Your task to perform on an android device: turn smart compose on in the gmail app Image 0: 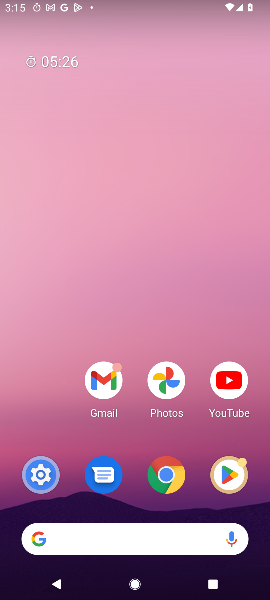
Step 0: press home button
Your task to perform on an android device: turn smart compose on in the gmail app Image 1: 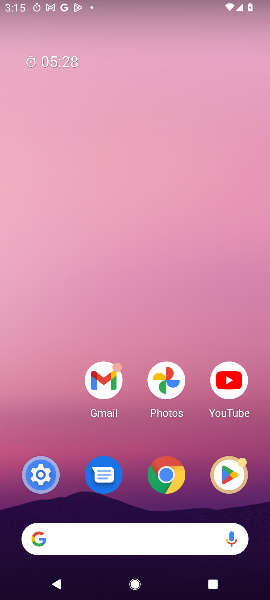
Step 1: drag from (64, 428) to (41, 215)
Your task to perform on an android device: turn smart compose on in the gmail app Image 2: 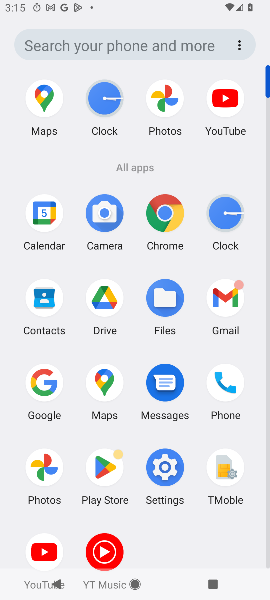
Step 2: click (225, 300)
Your task to perform on an android device: turn smart compose on in the gmail app Image 3: 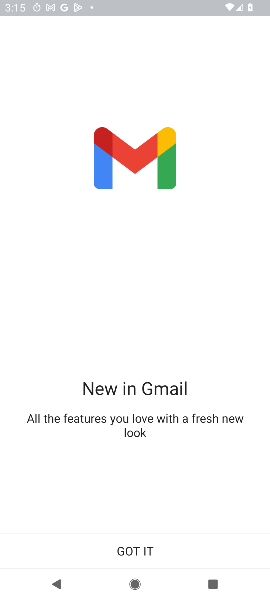
Step 3: click (125, 549)
Your task to perform on an android device: turn smart compose on in the gmail app Image 4: 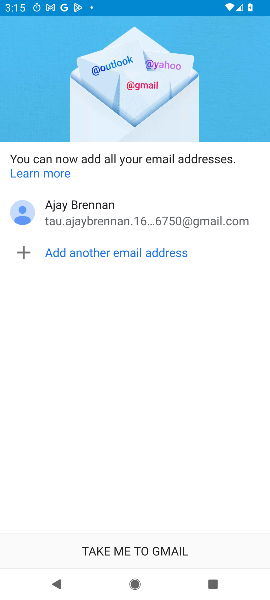
Step 4: click (153, 544)
Your task to perform on an android device: turn smart compose on in the gmail app Image 5: 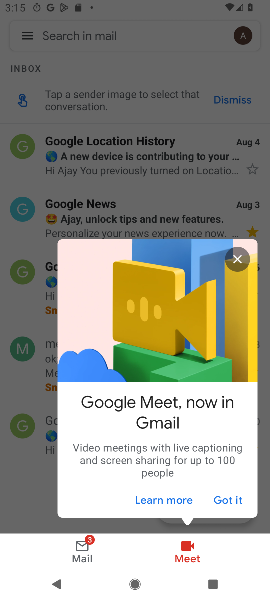
Step 5: click (237, 257)
Your task to perform on an android device: turn smart compose on in the gmail app Image 6: 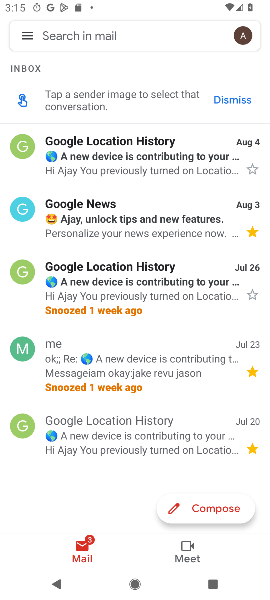
Step 6: click (29, 34)
Your task to perform on an android device: turn smart compose on in the gmail app Image 7: 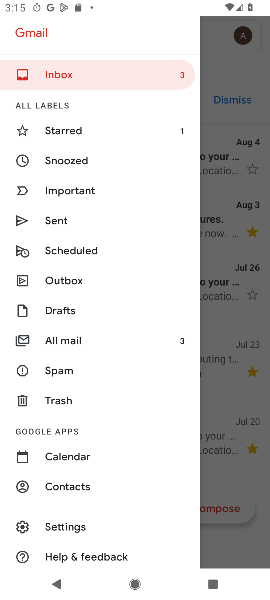
Step 7: click (77, 531)
Your task to perform on an android device: turn smart compose on in the gmail app Image 8: 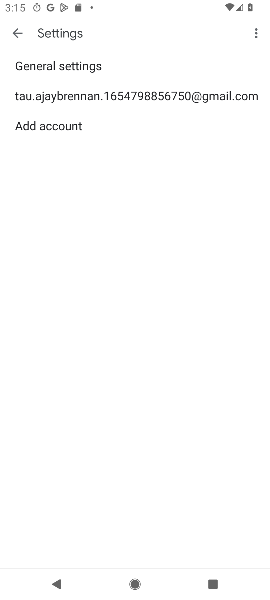
Step 8: click (119, 91)
Your task to perform on an android device: turn smart compose on in the gmail app Image 9: 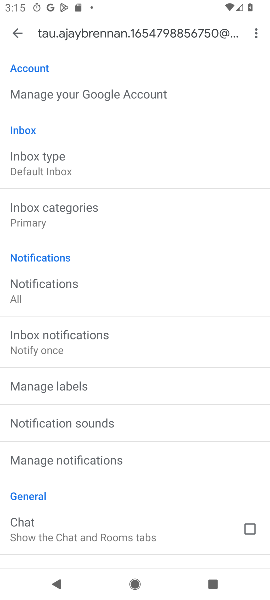
Step 9: task complete